Your task to perform on an android device: Go to sound settings Image 0: 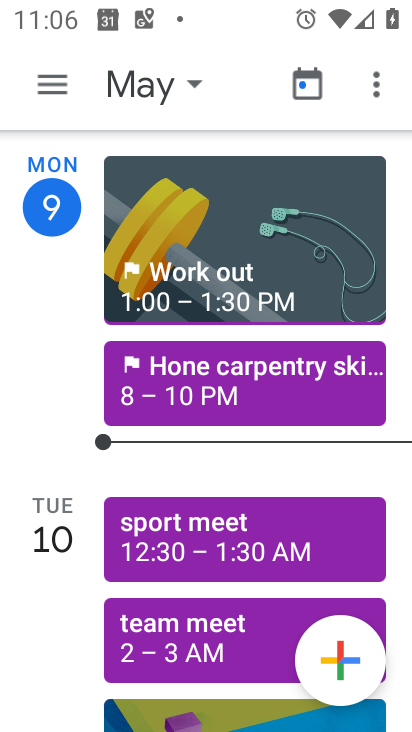
Step 0: press home button
Your task to perform on an android device: Go to sound settings Image 1: 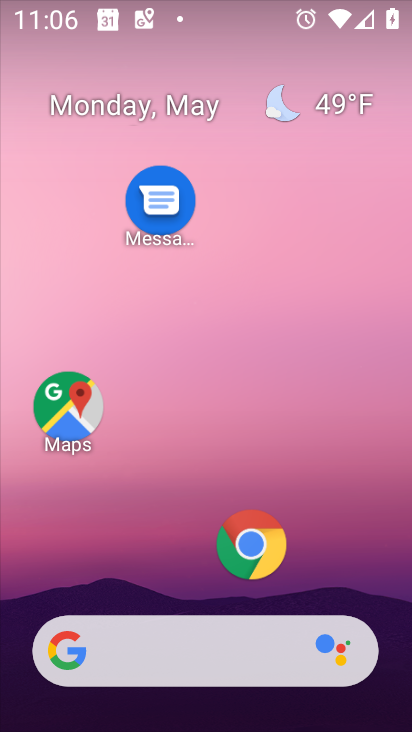
Step 1: drag from (152, 572) to (225, 157)
Your task to perform on an android device: Go to sound settings Image 2: 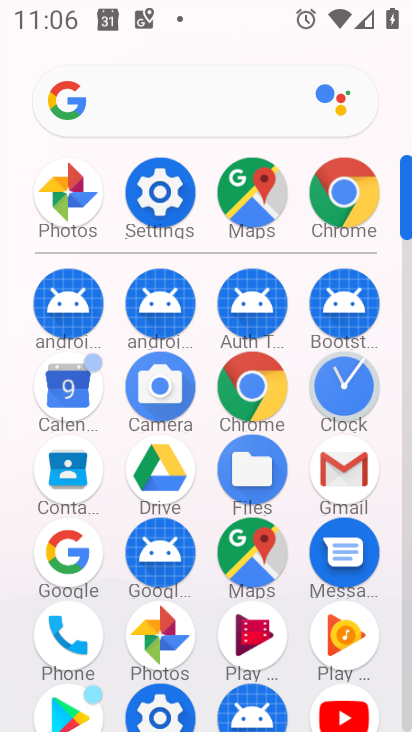
Step 2: click (139, 208)
Your task to perform on an android device: Go to sound settings Image 3: 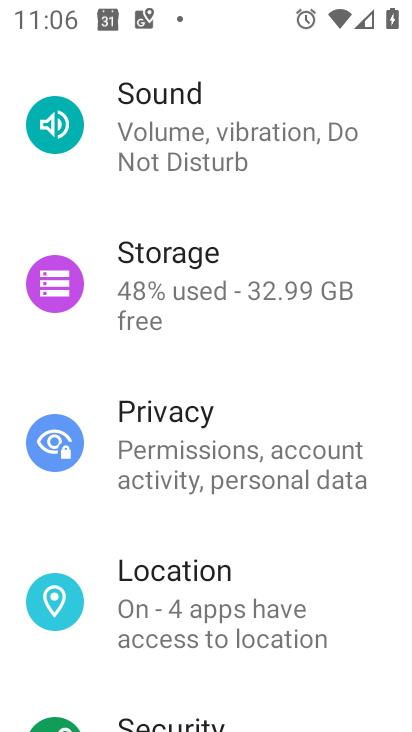
Step 3: click (213, 143)
Your task to perform on an android device: Go to sound settings Image 4: 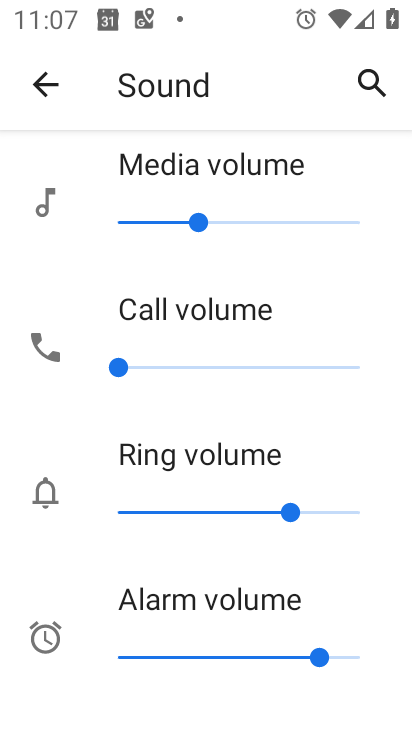
Step 4: task complete